Your task to perform on an android device: see tabs open on other devices in the chrome app Image 0: 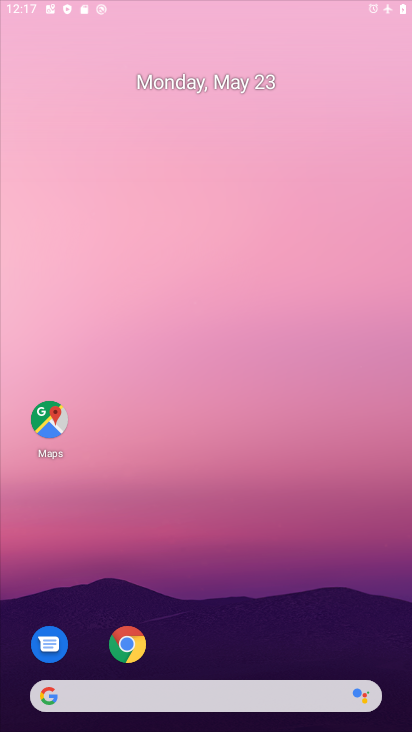
Step 0: click (322, 134)
Your task to perform on an android device: see tabs open on other devices in the chrome app Image 1: 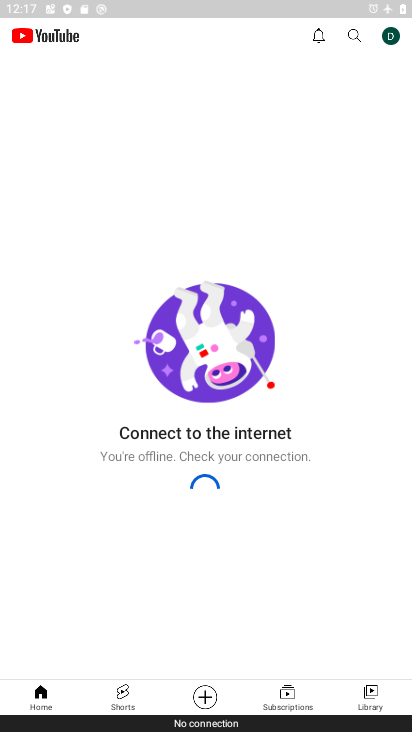
Step 1: press home button
Your task to perform on an android device: see tabs open on other devices in the chrome app Image 2: 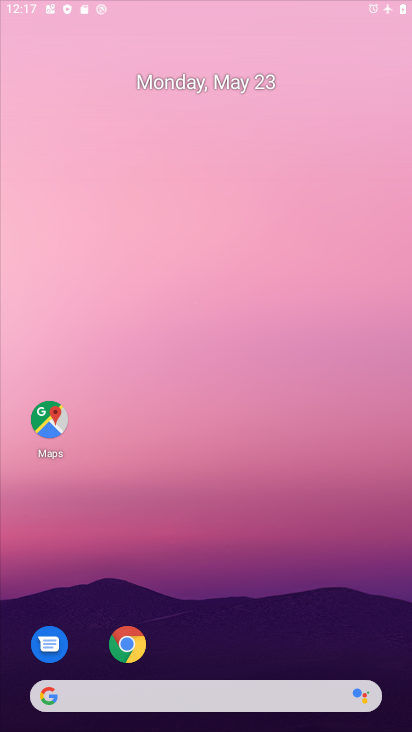
Step 2: drag from (354, 613) to (306, 73)
Your task to perform on an android device: see tabs open on other devices in the chrome app Image 3: 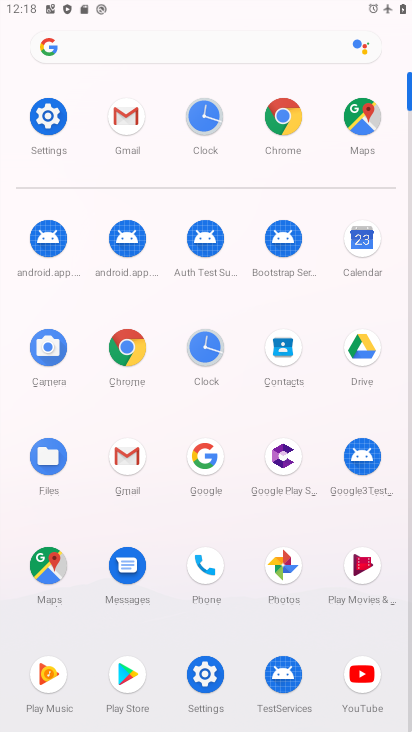
Step 3: click (279, 125)
Your task to perform on an android device: see tabs open on other devices in the chrome app Image 4: 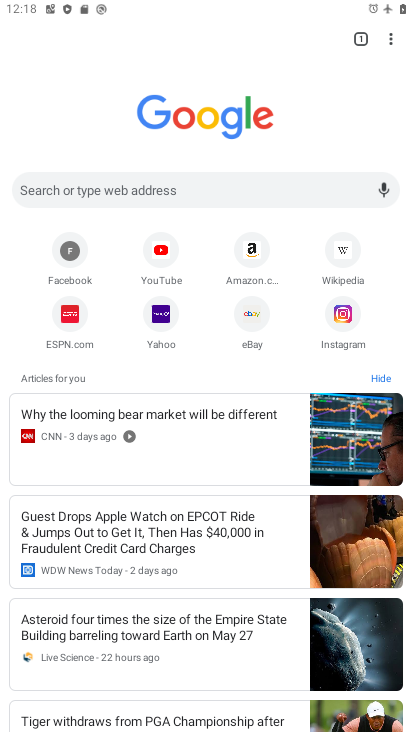
Step 4: task complete